Your task to perform on an android device: turn off priority inbox in the gmail app Image 0: 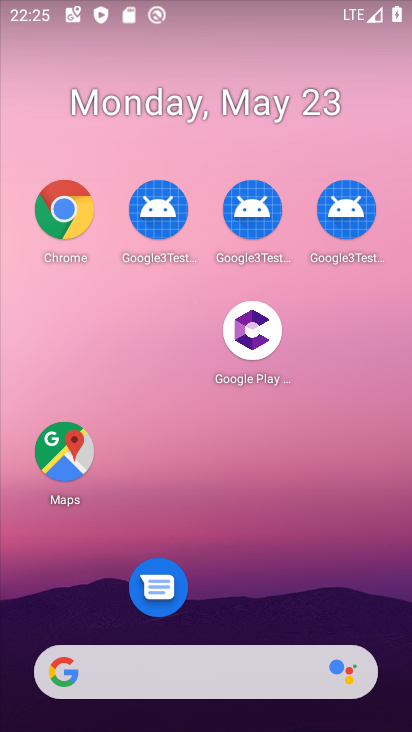
Step 0: drag from (243, 562) to (199, 61)
Your task to perform on an android device: turn off priority inbox in the gmail app Image 1: 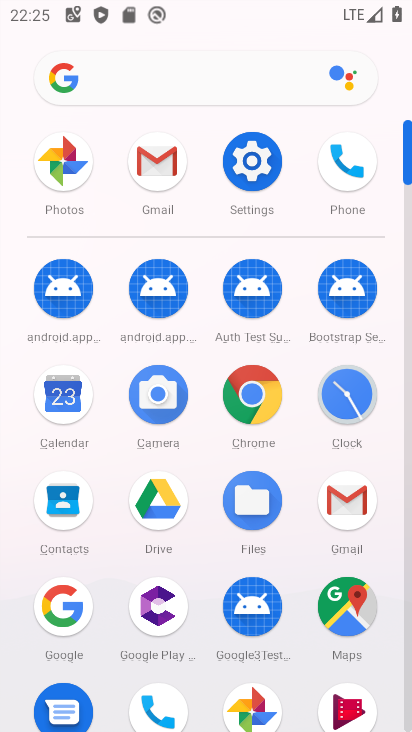
Step 1: click (205, 33)
Your task to perform on an android device: turn off priority inbox in the gmail app Image 2: 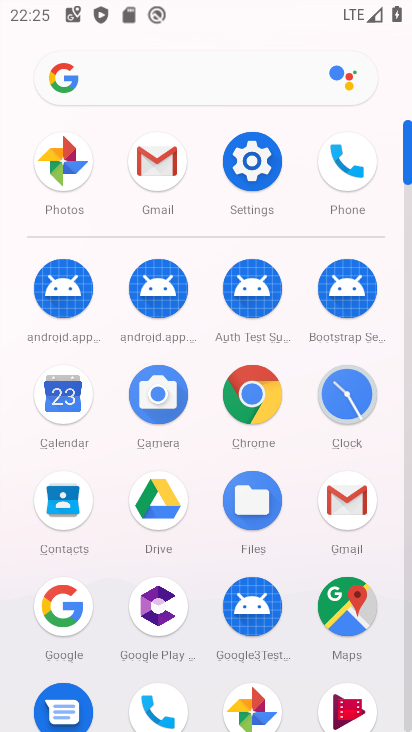
Step 2: click (146, 156)
Your task to perform on an android device: turn off priority inbox in the gmail app Image 3: 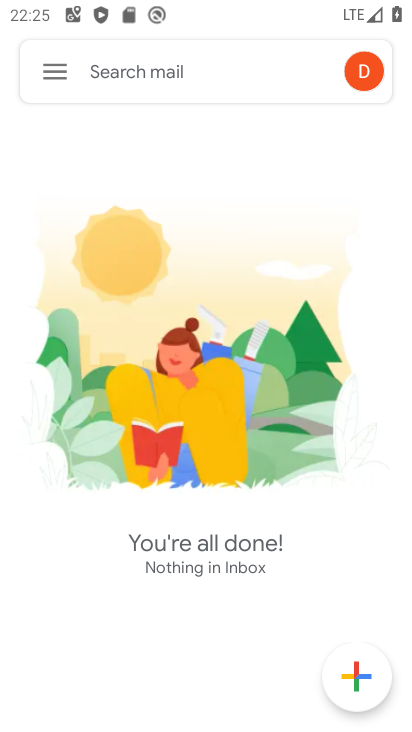
Step 3: click (49, 57)
Your task to perform on an android device: turn off priority inbox in the gmail app Image 4: 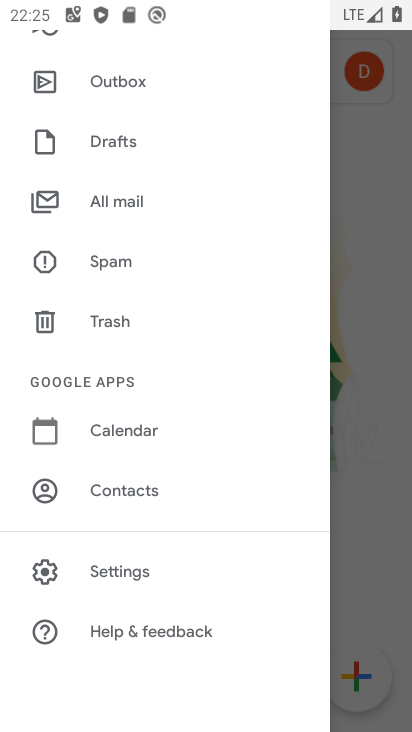
Step 4: drag from (175, 256) to (171, 492)
Your task to perform on an android device: turn off priority inbox in the gmail app Image 5: 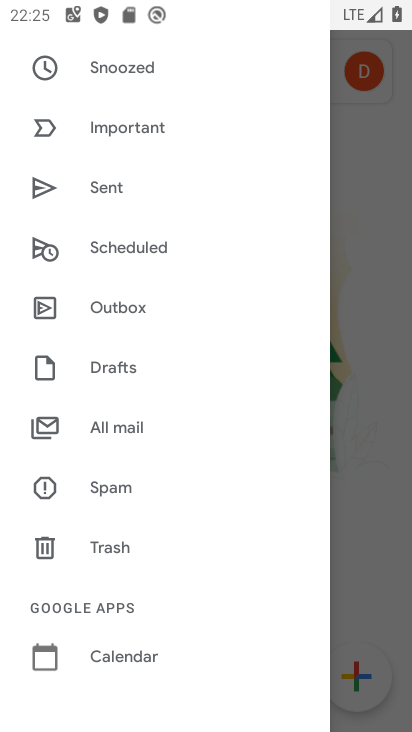
Step 5: drag from (155, 188) to (167, 614)
Your task to perform on an android device: turn off priority inbox in the gmail app Image 6: 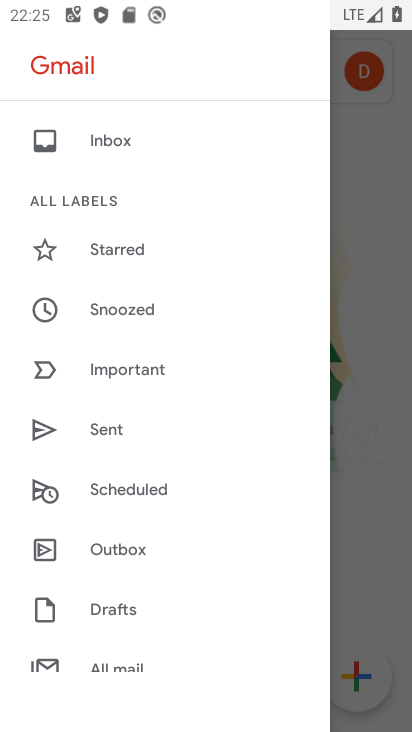
Step 6: click (128, 142)
Your task to perform on an android device: turn off priority inbox in the gmail app Image 7: 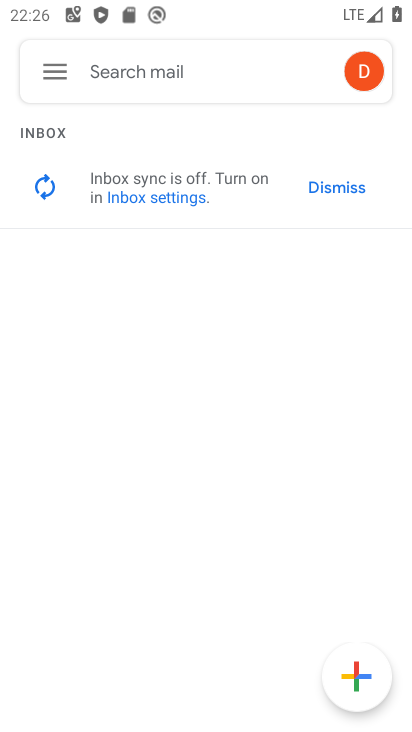
Step 7: click (171, 201)
Your task to perform on an android device: turn off priority inbox in the gmail app Image 8: 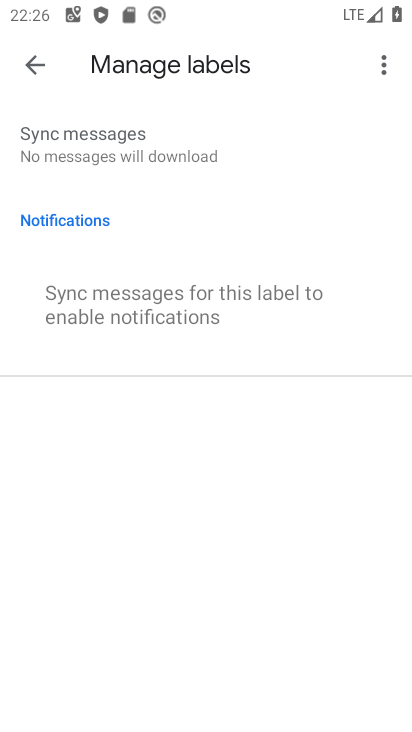
Step 8: click (379, 38)
Your task to perform on an android device: turn off priority inbox in the gmail app Image 9: 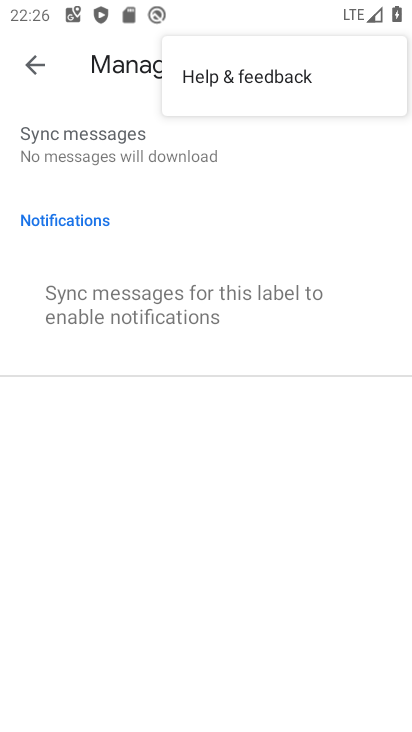
Step 9: task complete